Your task to perform on an android device: Search for pizza restaurants on Maps Image 0: 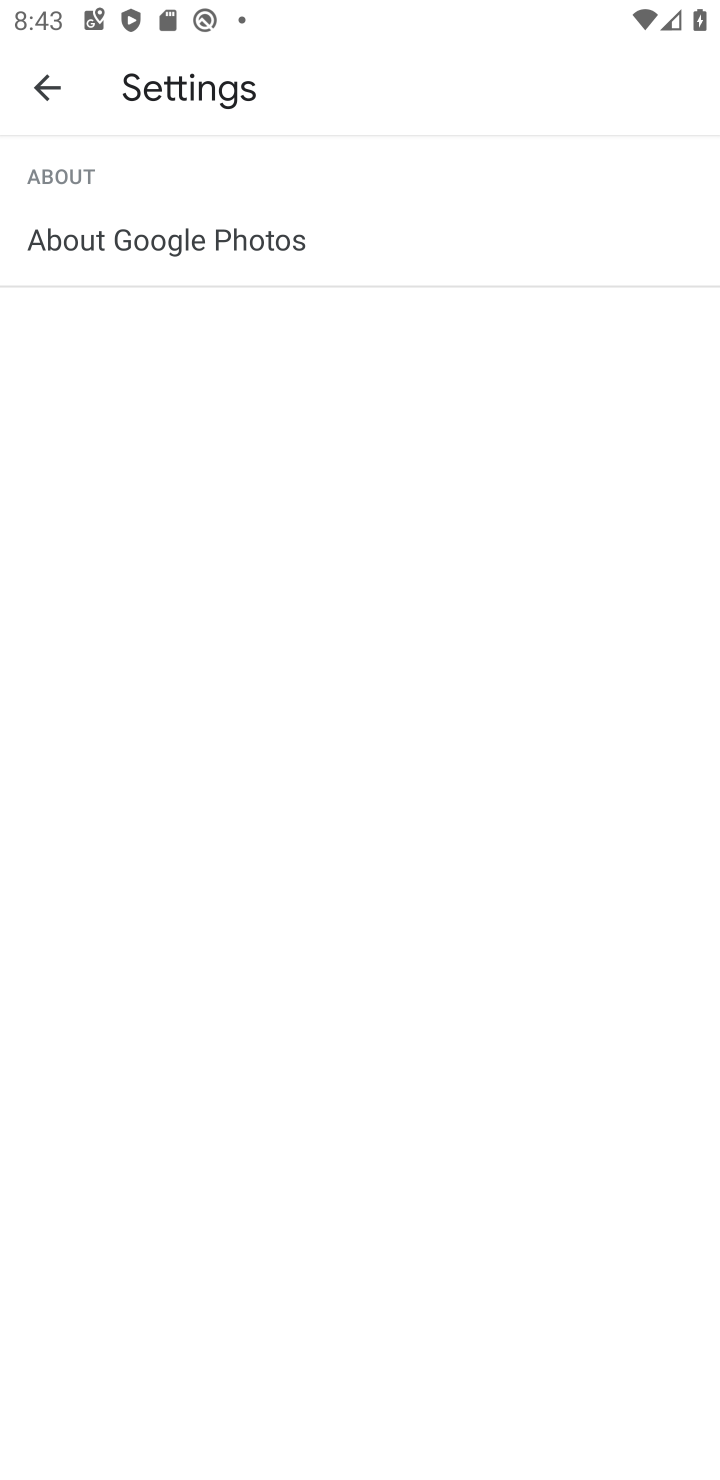
Step 0: press home button
Your task to perform on an android device: Search for pizza restaurants on Maps Image 1: 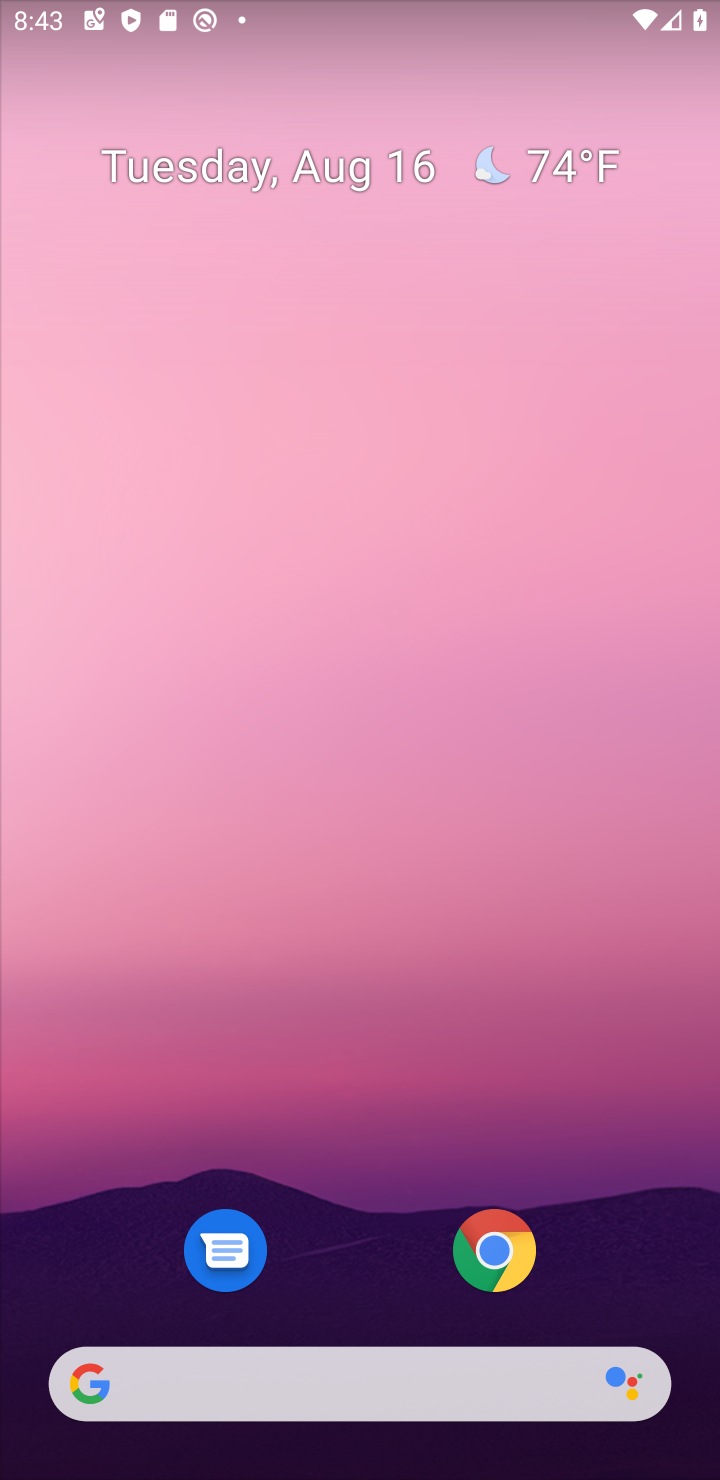
Step 1: drag from (266, 574) to (303, 385)
Your task to perform on an android device: Search for pizza restaurants on Maps Image 2: 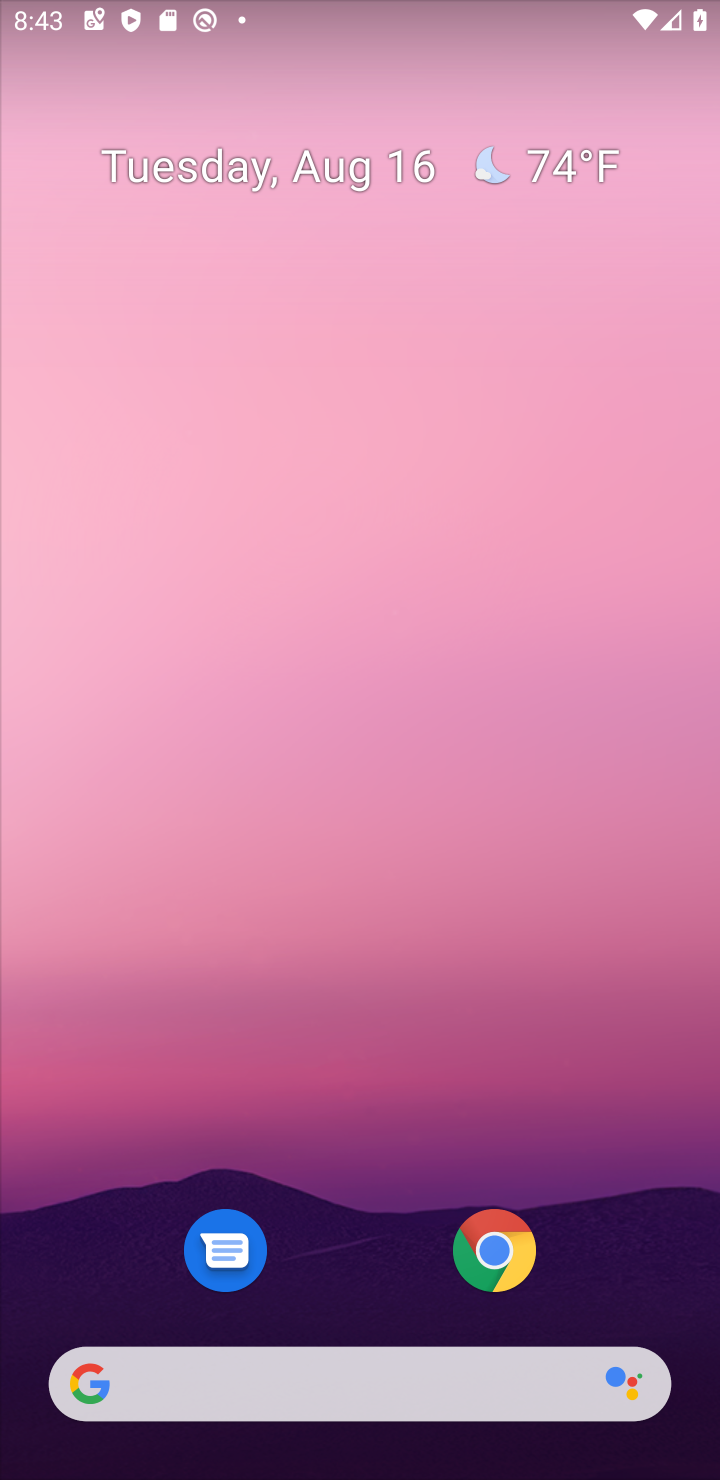
Step 2: drag from (348, 1274) to (581, 255)
Your task to perform on an android device: Search for pizza restaurants on Maps Image 3: 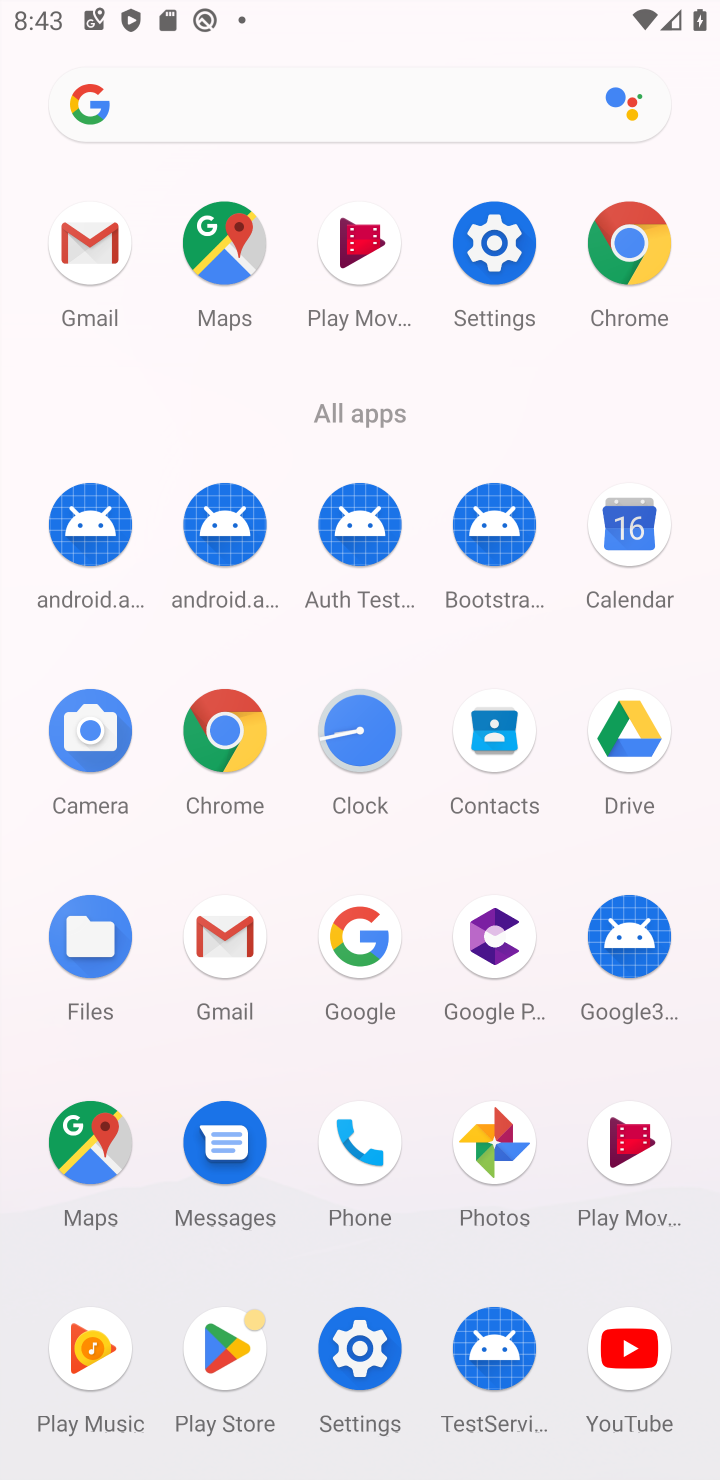
Step 3: click (214, 241)
Your task to perform on an android device: Search for pizza restaurants on Maps Image 4: 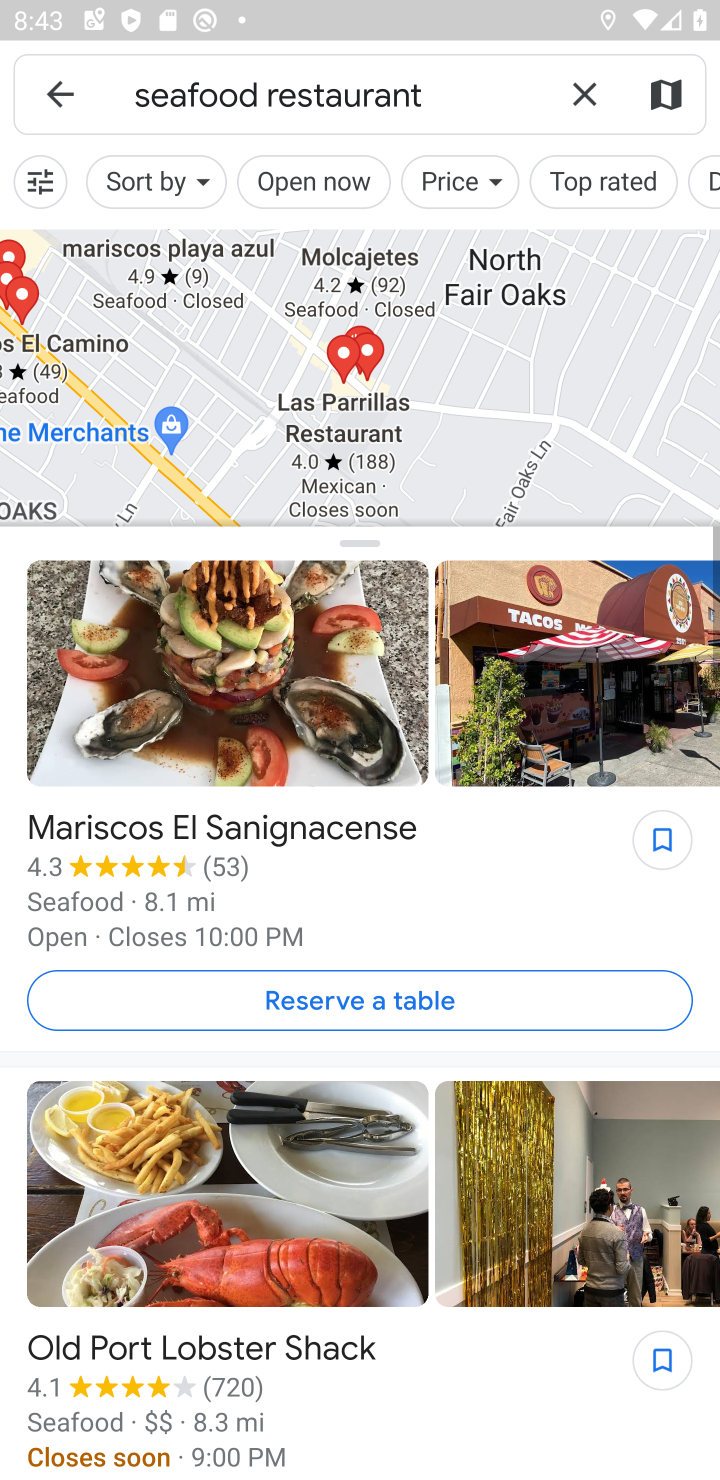
Step 4: click (588, 85)
Your task to perform on an android device: Search for pizza restaurants on Maps Image 5: 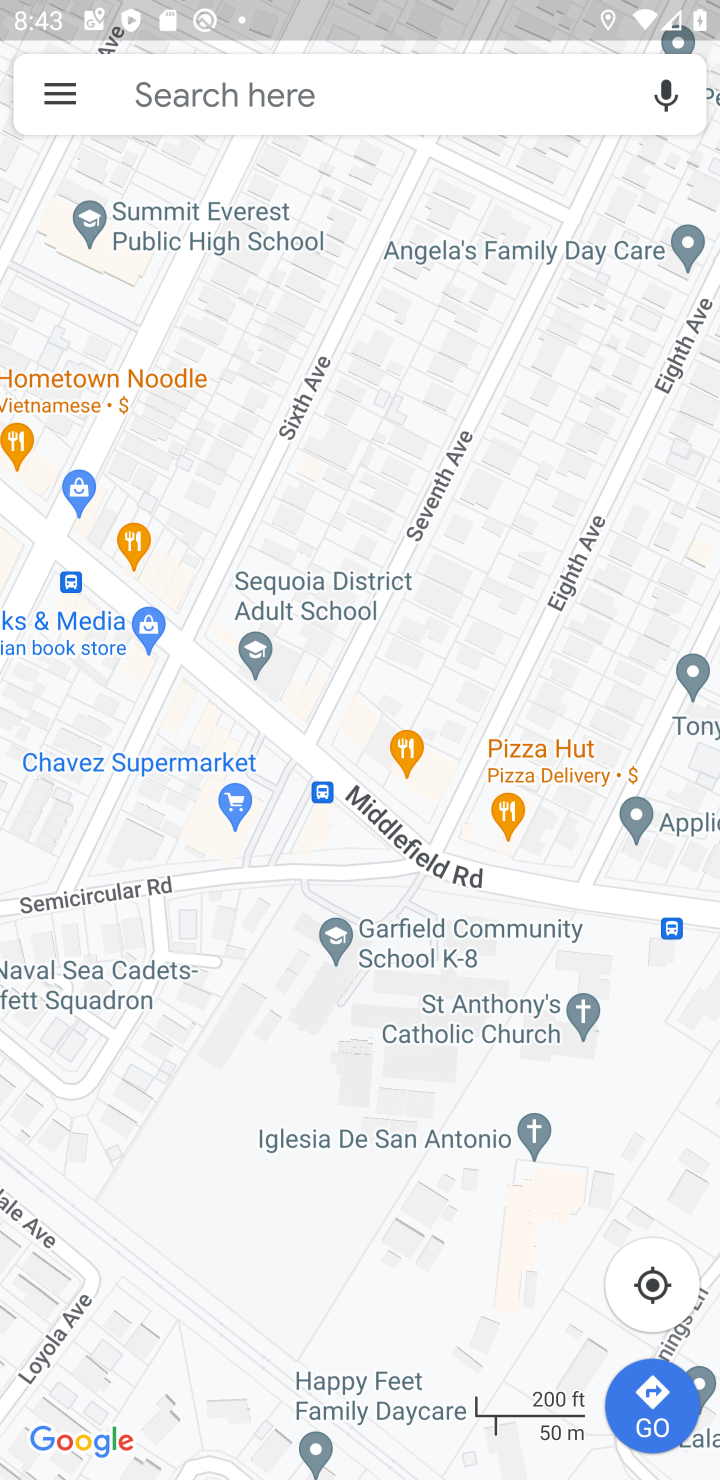
Step 5: click (540, 82)
Your task to perform on an android device: Search for pizza restaurants on Maps Image 6: 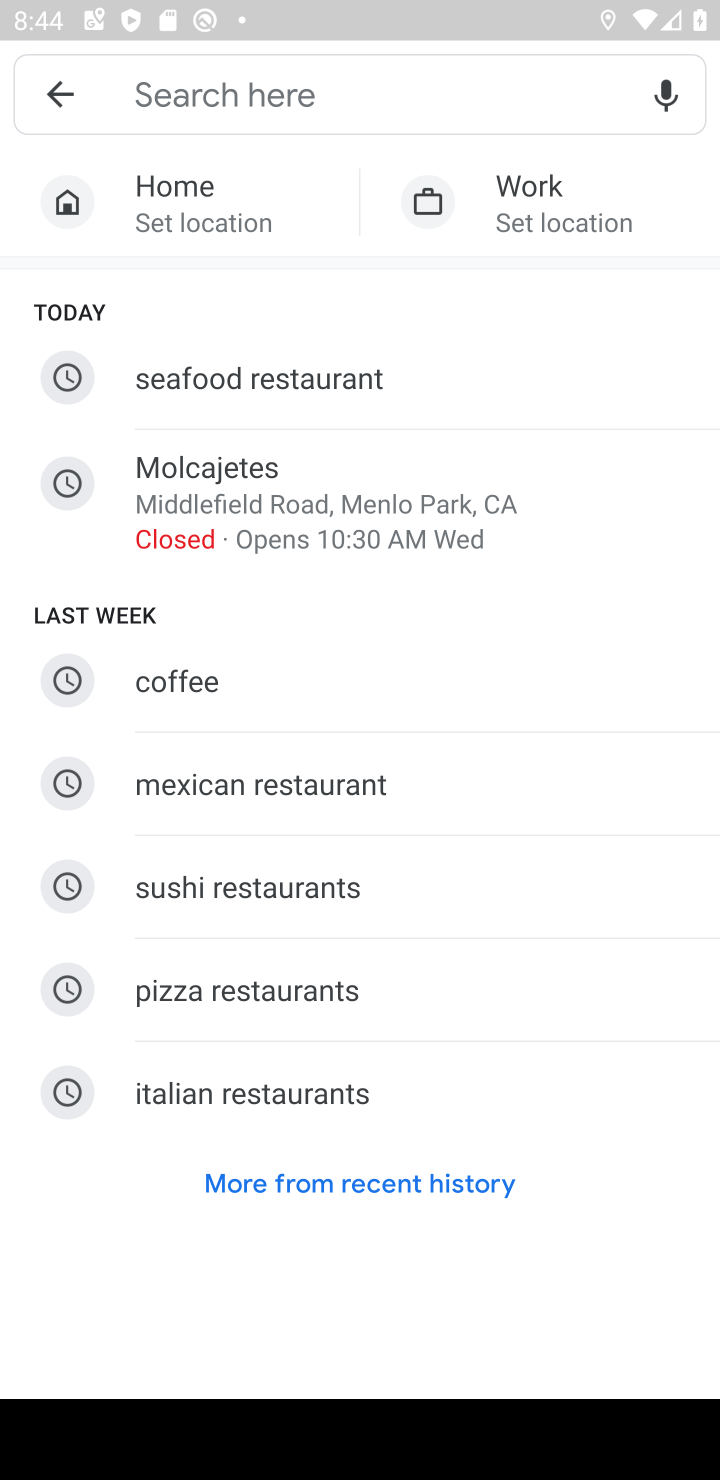
Step 6: click (271, 974)
Your task to perform on an android device: Search for pizza restaurants on Maps Image 7: 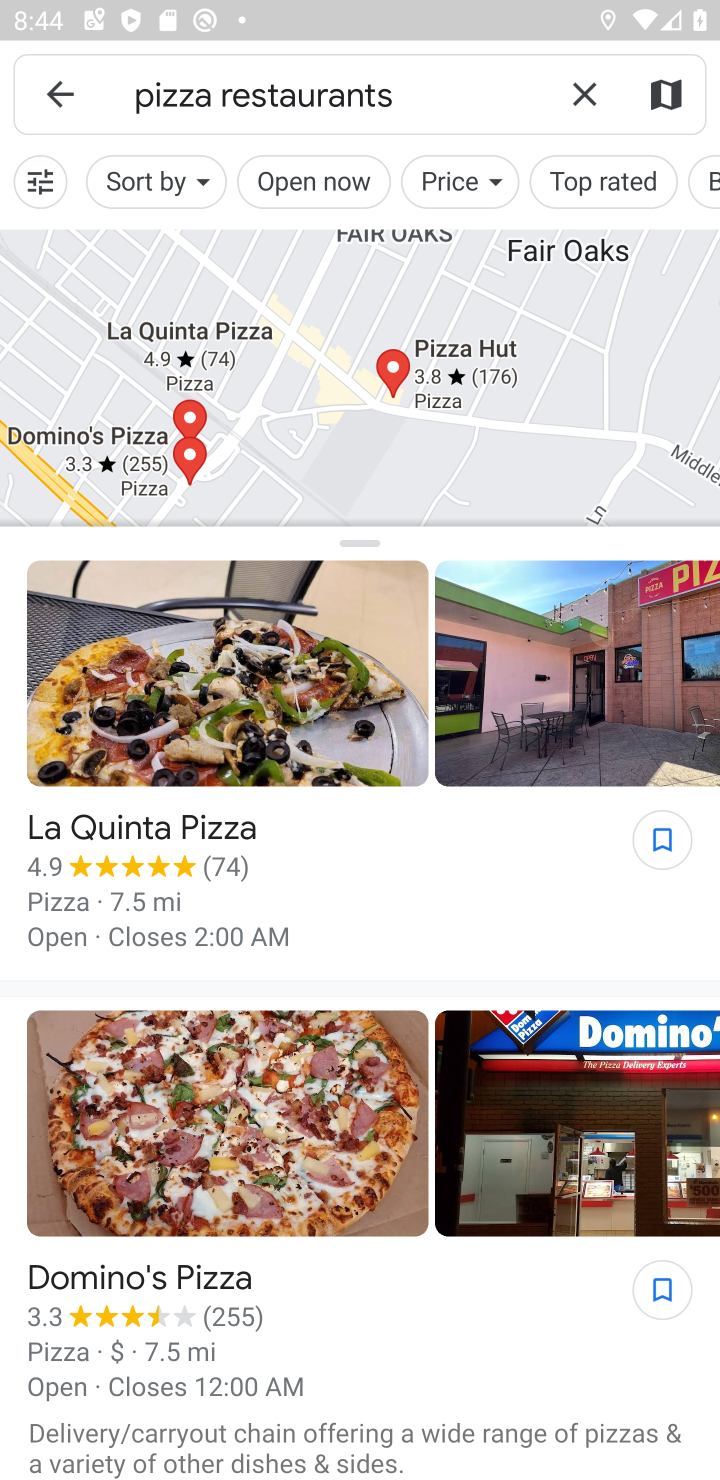
Step 7: task complete